Your task to perform on an android device: Open Google Chrome and open the bookmarks view Image 0: 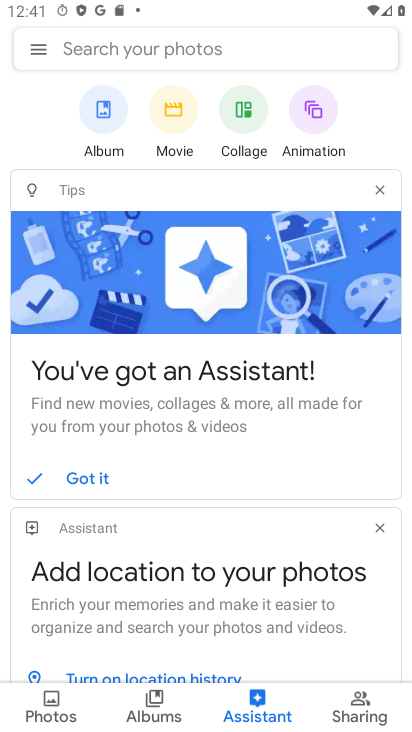
Step 0: drag from (221, 607) to (305, 117)
Your task to perform on an android device: Open Google Chrome and open the bookmarks view Image 1: 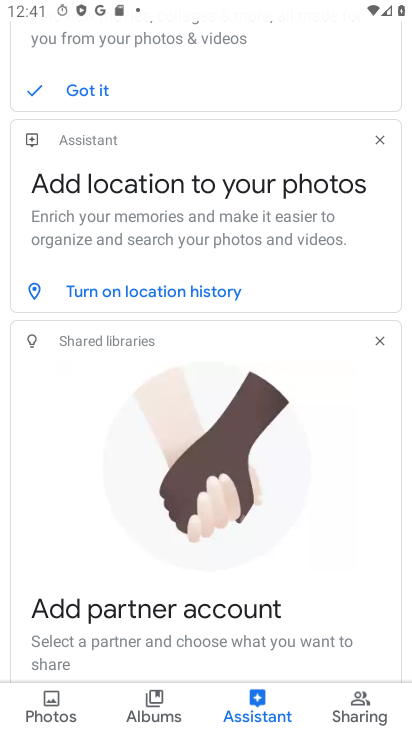
Step 1: press home button
Your task to perform on an android device: Open Google Chrome and open the bookmarks view Image 2: 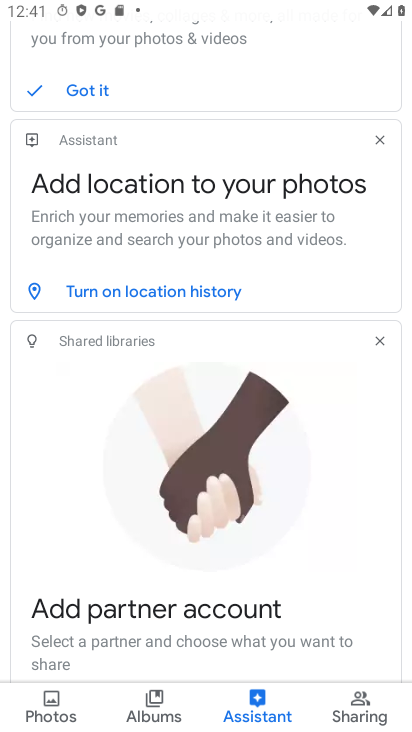
Step 2: drag from (252, 547) to (268, 3)
Your task to perform on an android device: Open Google Chrome and open the bookmarks view Image 3: 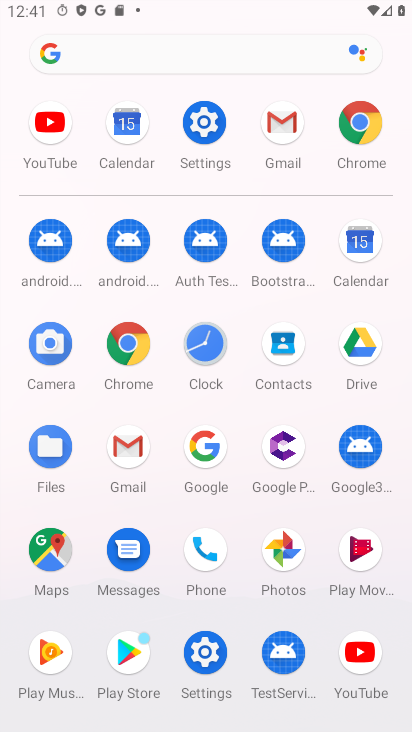
Step 3: click (367, 126)
Your task to perform on an android device: Open Google Chrome and open the bookmarks view Image 4: 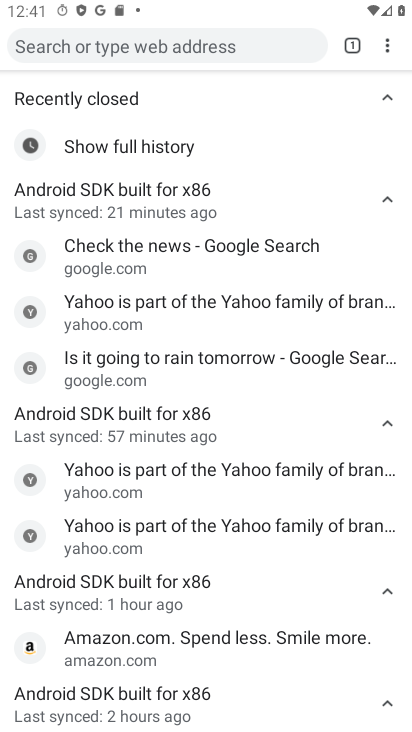
Step 4: drag from (379, 48) to (271, 386)
Your task to perform on an android device: Open Google Chrome and open the bookmarks view Image 5: 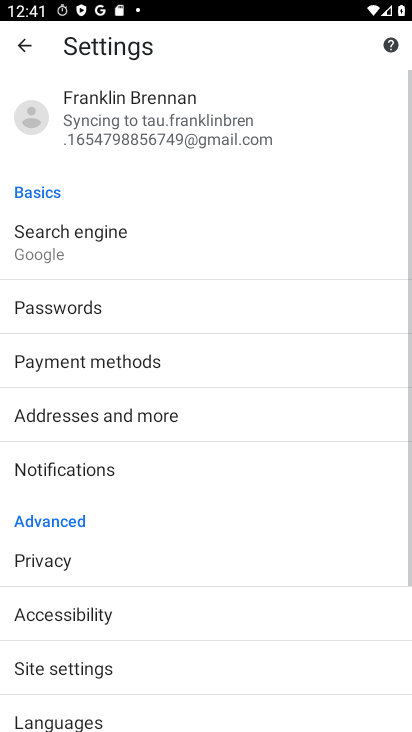
Step 5: drag from (175, 609) to (256, 170)
Your task to perform on an android device: Open Google Chrome and open the bookmarks view Image 6: 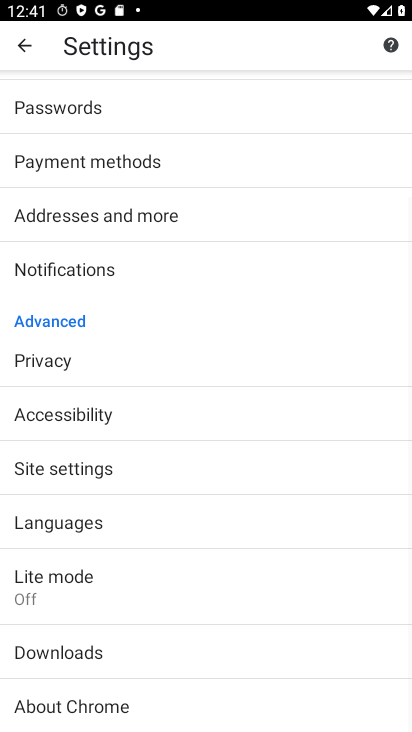
Step 6: click (29, 29)
Your task to perform on an android device: Open Google Chrome and open the bookmarks view Image 7: 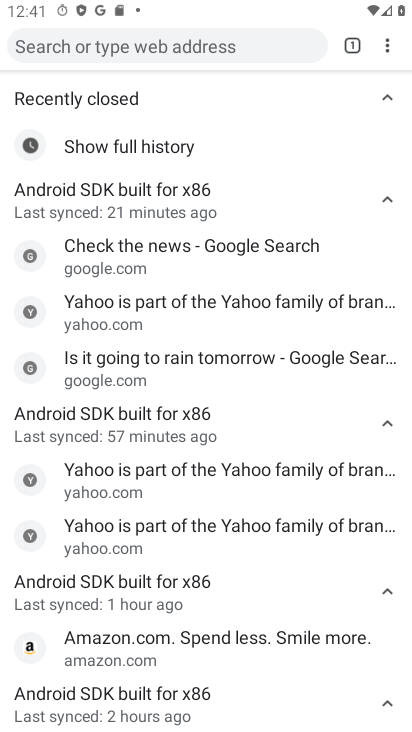
Step 7: task complete